Your task to perform on an android device: set default search engine in the chrome app Image 0: 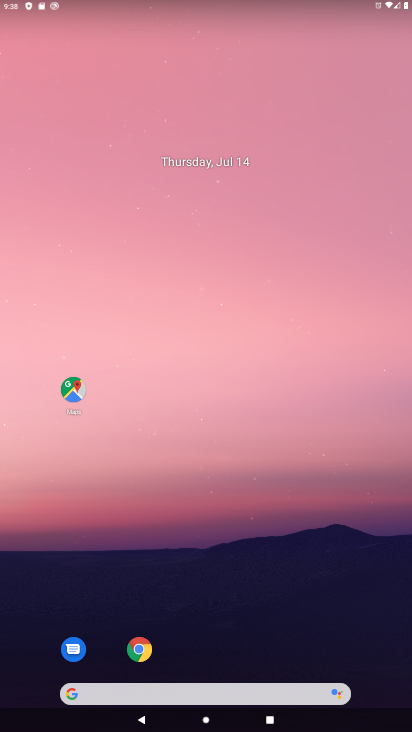
Step 0: click (148, 649)
Your task to perform on an android device: set default search engine in the chrome app Image 1: 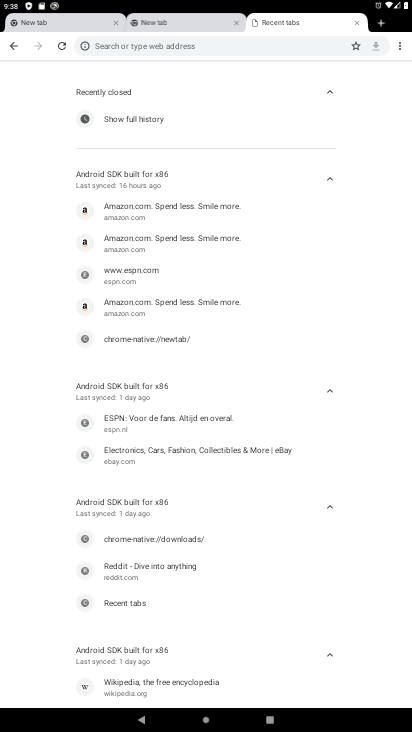
Step 1: click (403, 46)
Your task to perform on an android device: set default search engine in the chrome app Image 2: 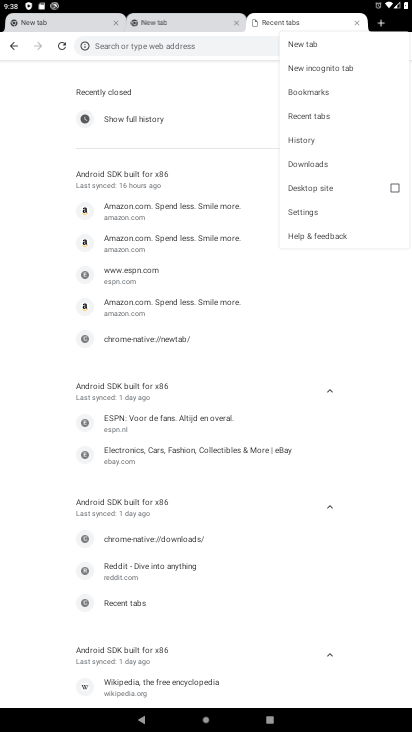
Step 2: click (310, 214)
Your task to perform on an android device: set default search engine in the chrome app Image 3: 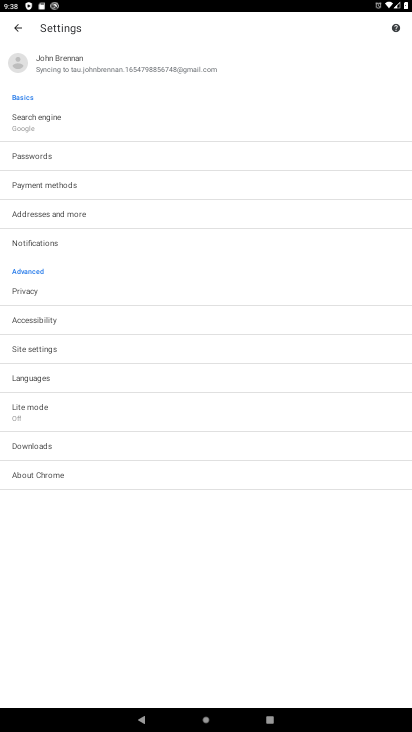
Step 3: click (55, 121)
Your task to perform on an android device: set default search engine in the chrome app Image 4: 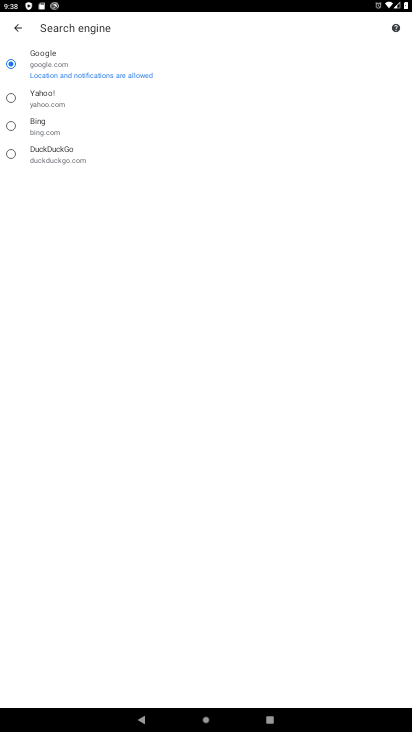
Step 4: task complete